Your task to perform on an android device: Open the Play Movies app and select the watchlist tab. Image 0: 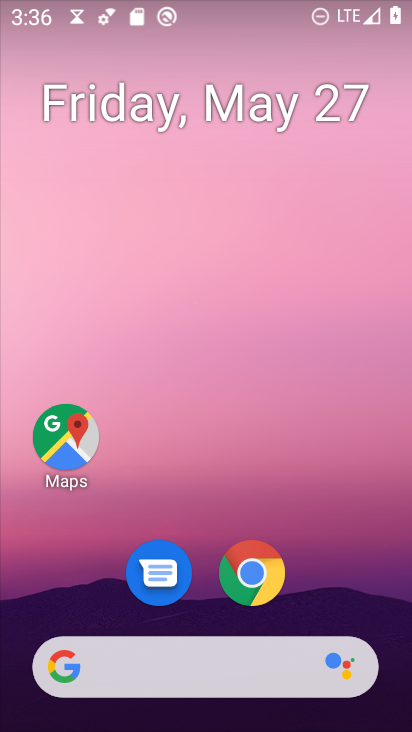
Step 0: drag from (307, 587) to (340, 0)
Your task to perform on an android device: Open the Play Movies app and select the watchlist tab. Image 1: 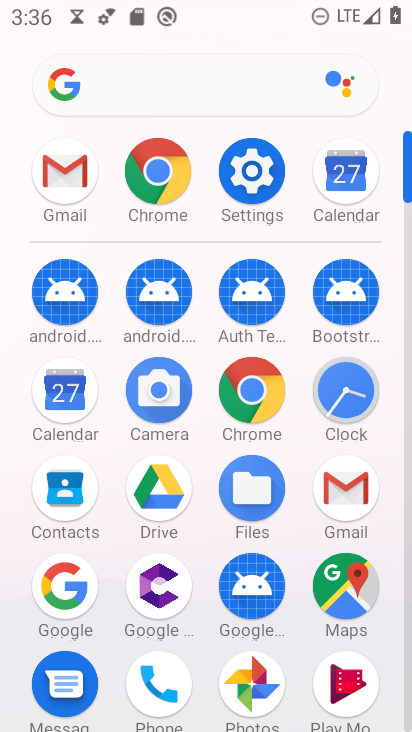
Step 1: click (339, 687)
Your task to perform on an android device: Open the Play Movies app and select the watchlist tab. Image 2: 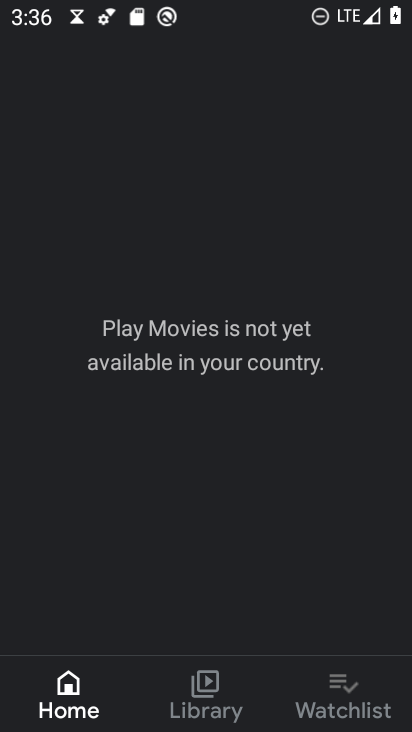
Step 2: click (357, 693)
Your task to perform on an android device: Open the Play Movies app and select the watchlist tab. Image 3: 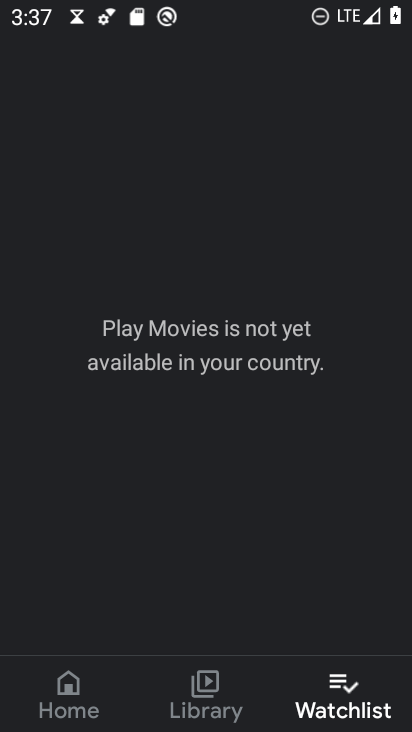
Step 3: task complete